Your task to perform on an android device: turn on the 24-hour format for clock Image 0: 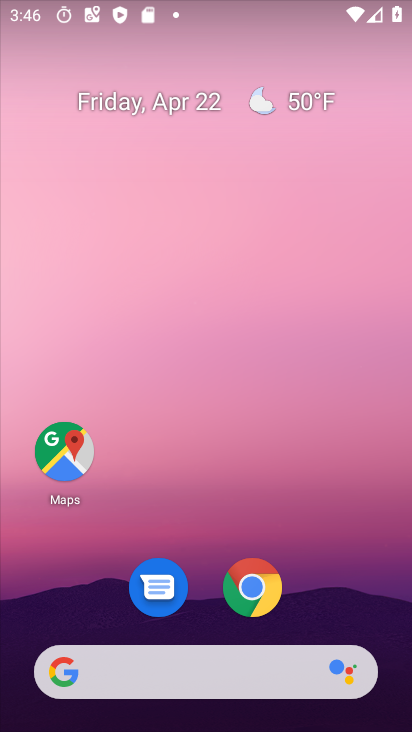
Step 0: click (361, 0)
Your task to perform on an android device: turn on the 24-hour format for clock Image 1: 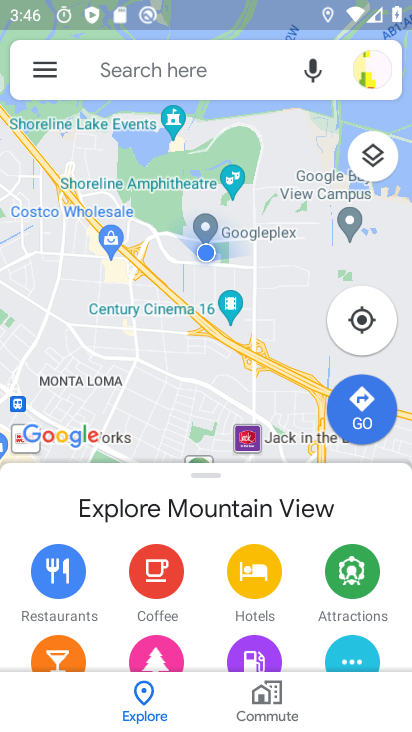
Step 1: press home button
Your task to perform on an android device: turn on the 24-hour format for clock Image 2: 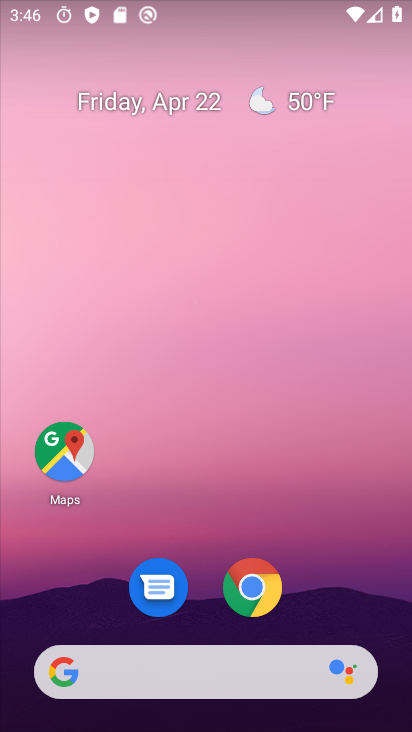
Step 2: drag from (362, 626) to (330, 1)
Your task to perform on an android device: turn on the 24-hour format for clock Image 3: 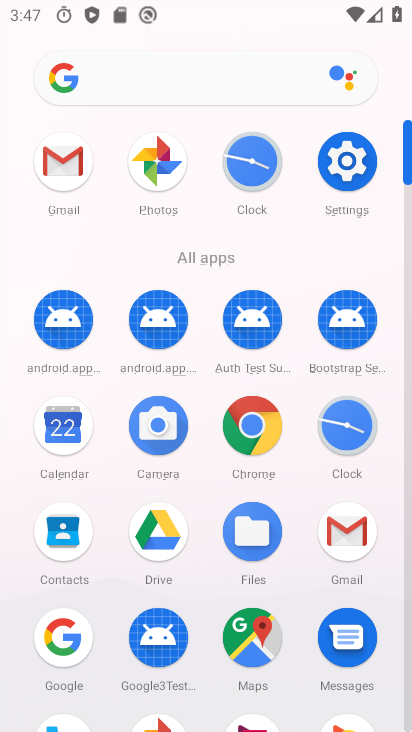
Step 3: click (252, 178)
Your task to perform on an android device: turn on the 24-hour format for clock Image 4: 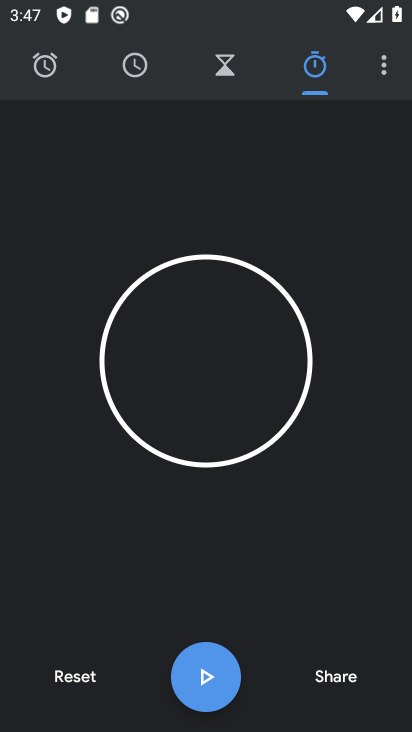
Step 4: click (384, 77)
Your task to perform on an android device: turn on the 24-hour format for clock Image 5: 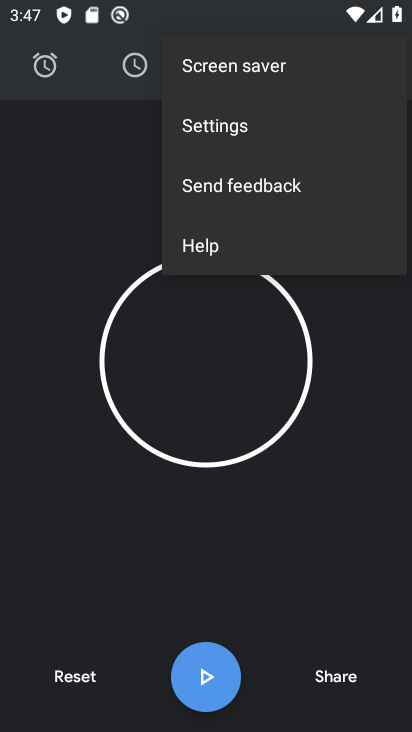
Step 5: click (206, 127)
Your task to perform on an android device: turn on the 24-hour format for clock Image 6: 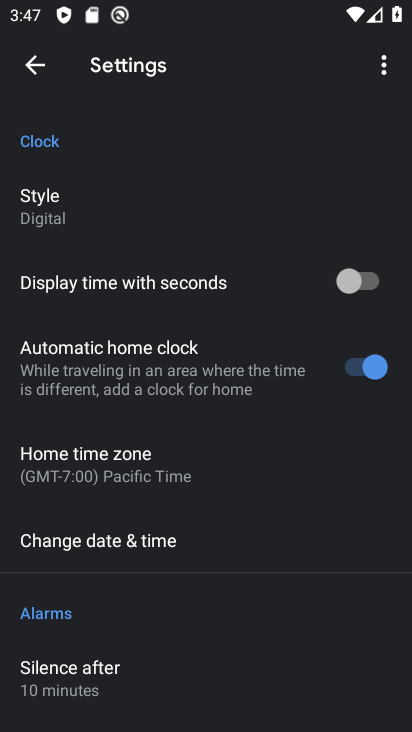
Step 6: click (93, 550)
Your task to perform on an android device: turn on the 24-hour format for clock Image 7: 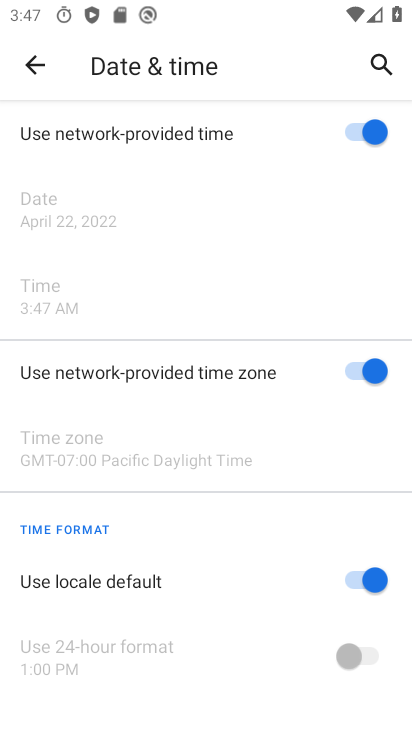
Step 7: click (374, 590)
Your task to perform on an android device: turn on the 24-hour format for clock Image 8: 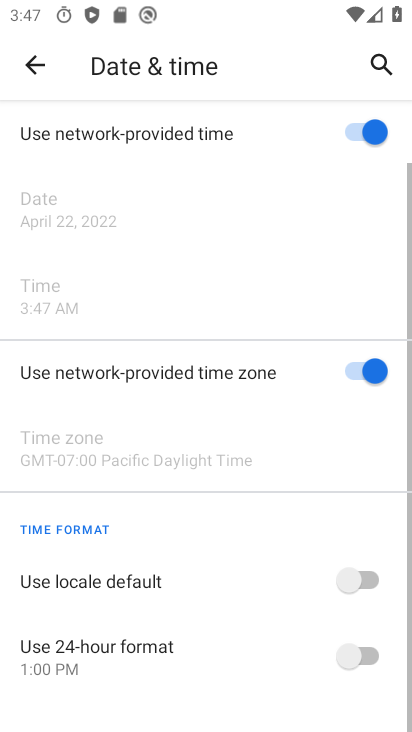
Step 8: click (355, 657)
Your task to perform on an android device: turn on the 24-hour format for clock Image 9: 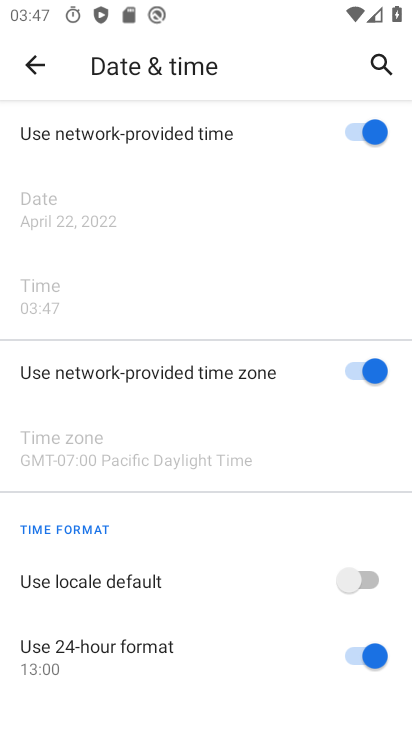
Step 9: task complete